Your task to perform on an android device: Go to notification settings Image 0: 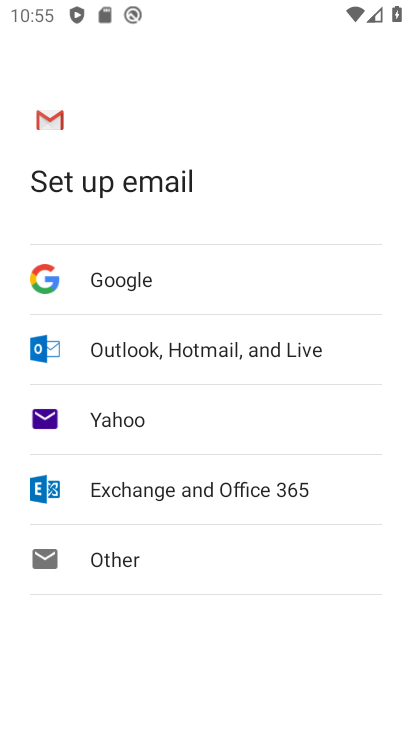
Step 0: press home button
Your task to perform on an android device: Go to notification settings Image 1: 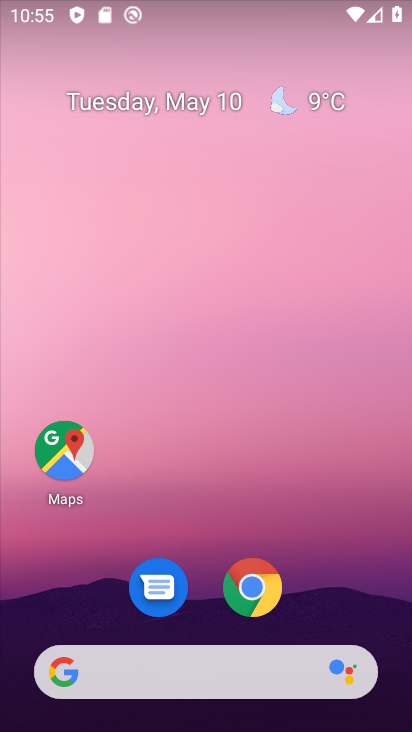
Step 1: drag from (321, 581) to (304, 5)
Your task to perform on an android device: Go to notification settings Image 2: 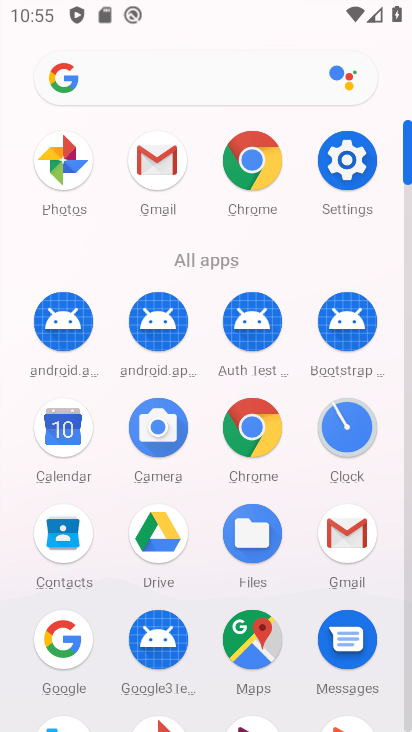
Step 2: click (339, 195)
Your task to perform on an android device: Go to notification settings Image 3: 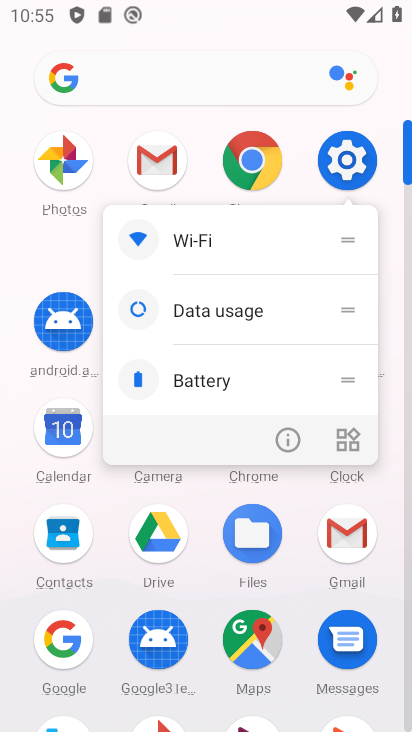
Step 3: click (351, 167)
Your task to perform on an android device: Go to notification settings Image 4: 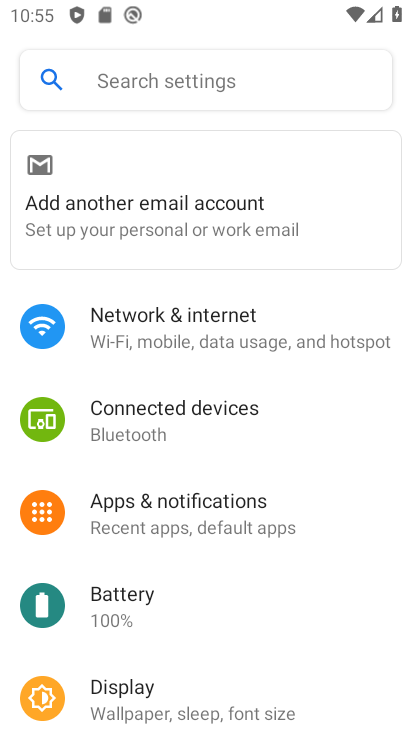
Step 4: click (208, 515)
Your task to perform on an android device: Go to notification settings Image 5: 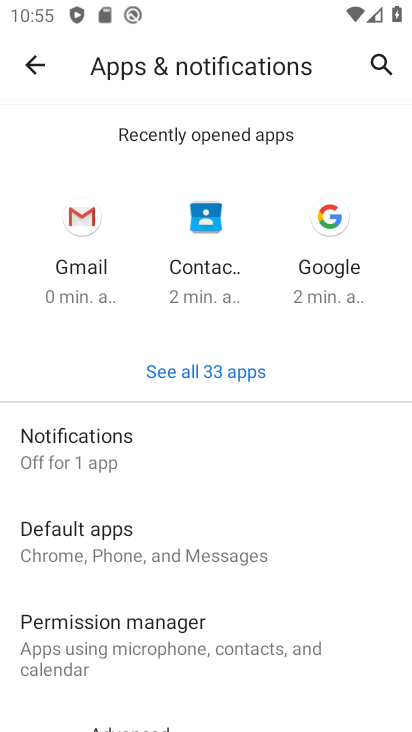
Step 5: task complete